Your task to perform on an android device: Empty the shopping cart on target.com. Search for "razer blackwidow" on target.com, select the first entry, add it to the cart, then select checkout. Image 0: 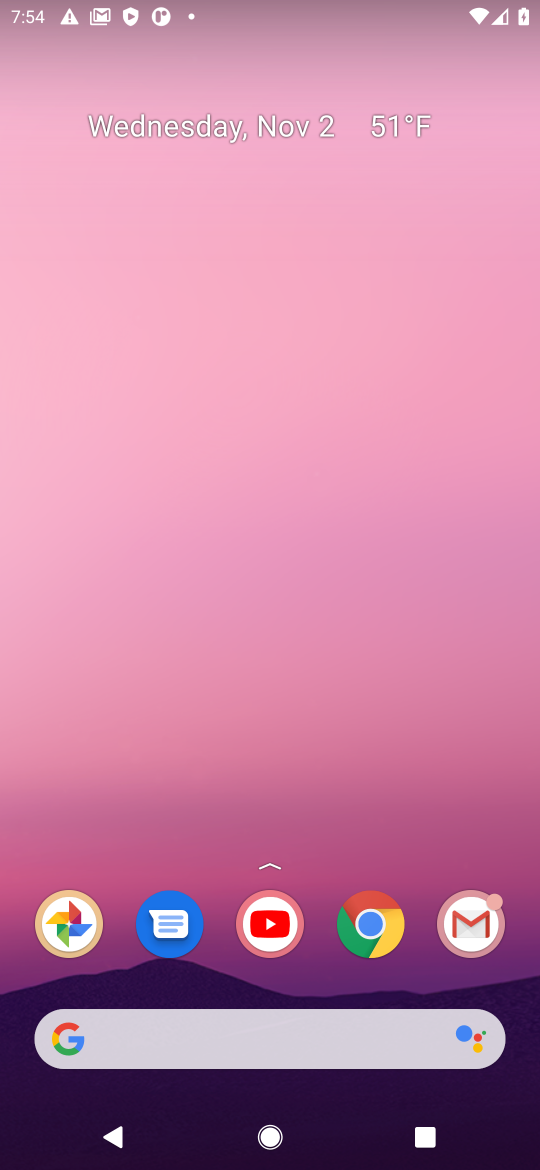
Step 0: click (379, 913)
Your task to perform on an android device: Empty the shopping cart on target.com. Search for "razer blackwidow" on target.com, select the first entry, add it to the cart, then select checkout. Image 1: 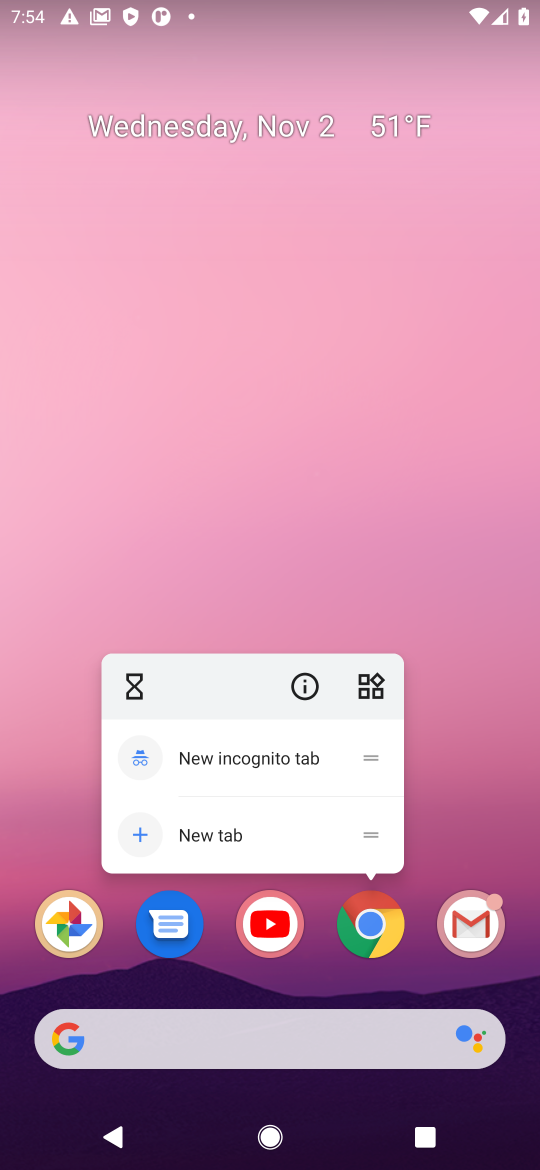
Step 1: click (389, 935)
Your task to perform on an android device: Empty the shopping cart on target.com. Search for "razer blackwidow" on target.com, select the first entry, add it to the cart, then select checkout. Image 2: 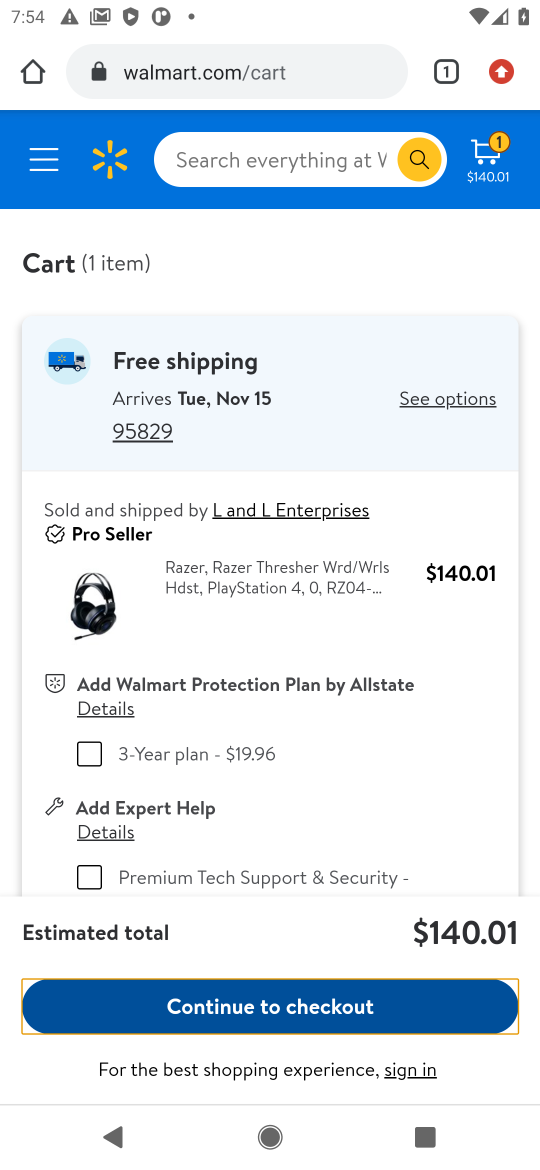
Step 2: click (240, 70)
Your task to perform on an android device: Empty the shopping cart on target.com. Search for "razer blackwidow" on target.com, select the first entry, add it to the cart, then select checkout. Image 3: 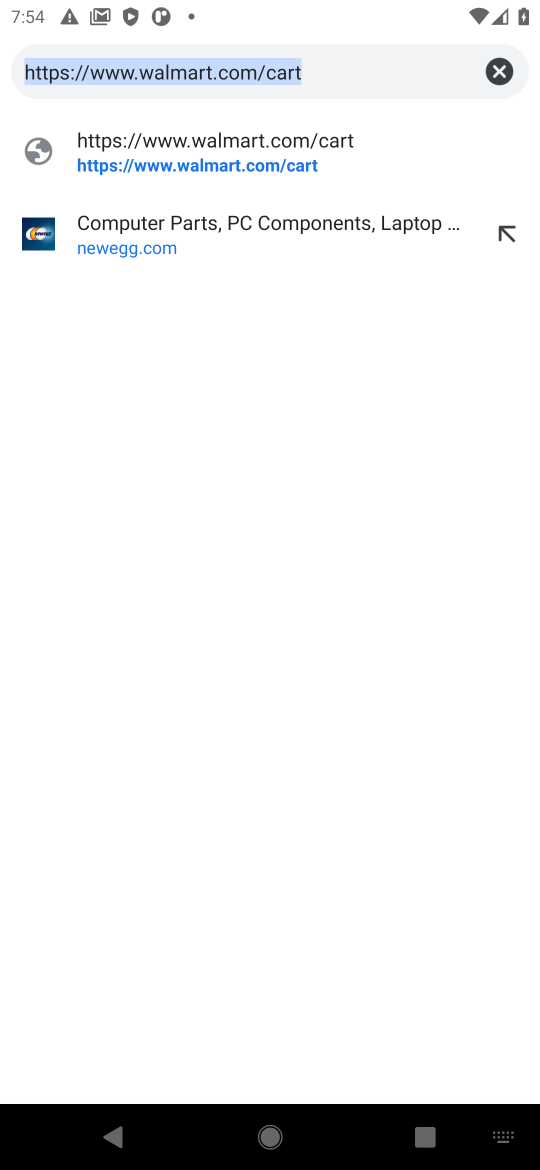
Step 3: click (495, 67)
Your task to perform on an android device: Empty the shopping cart on target.com. Search for "razer blackwidow" on target.com, select the first entry, add it to the cart, then select checkout. Image 4: 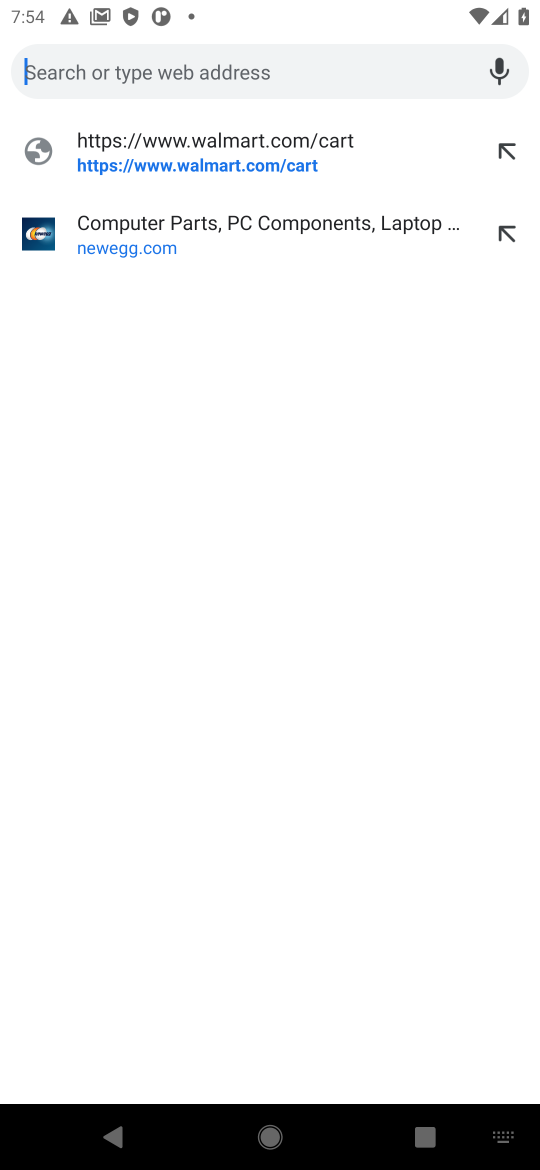
Step 4: type "target.com"
Your task to perform on an android device: Empty the shopping cart on target.com. Search for "razer blackwidow" on target.com, select the first entry, add it to the cart, then select checkout. Image 5: 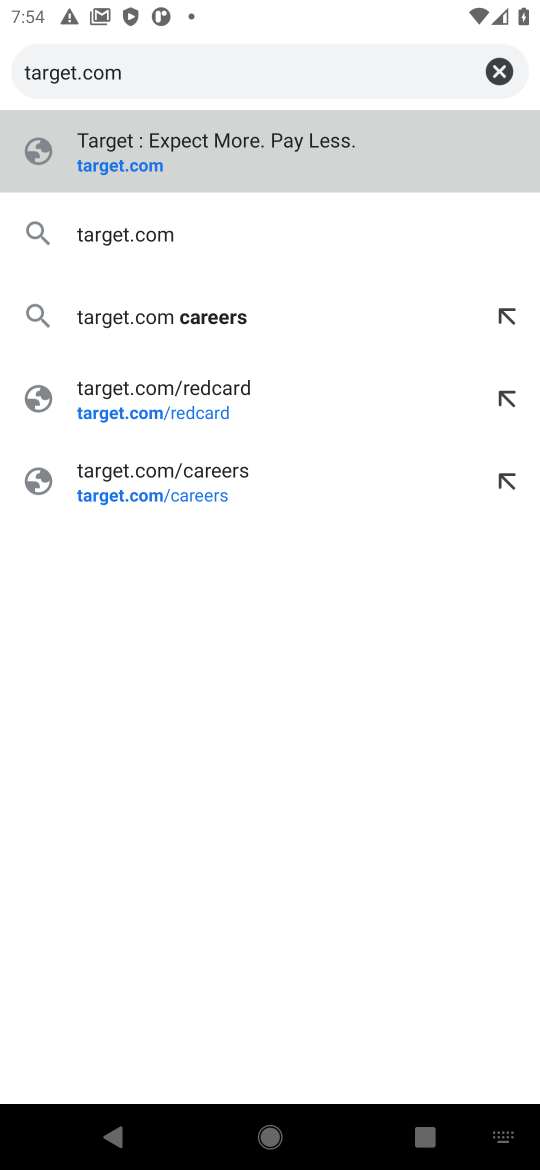
Step 5: type ""
Your task to perform on an android device: Empty the shopping cart on target.com. Search for "razer blackwidow" on target.com, select the first entry, add it to the cart, then select checkout. Image 6: 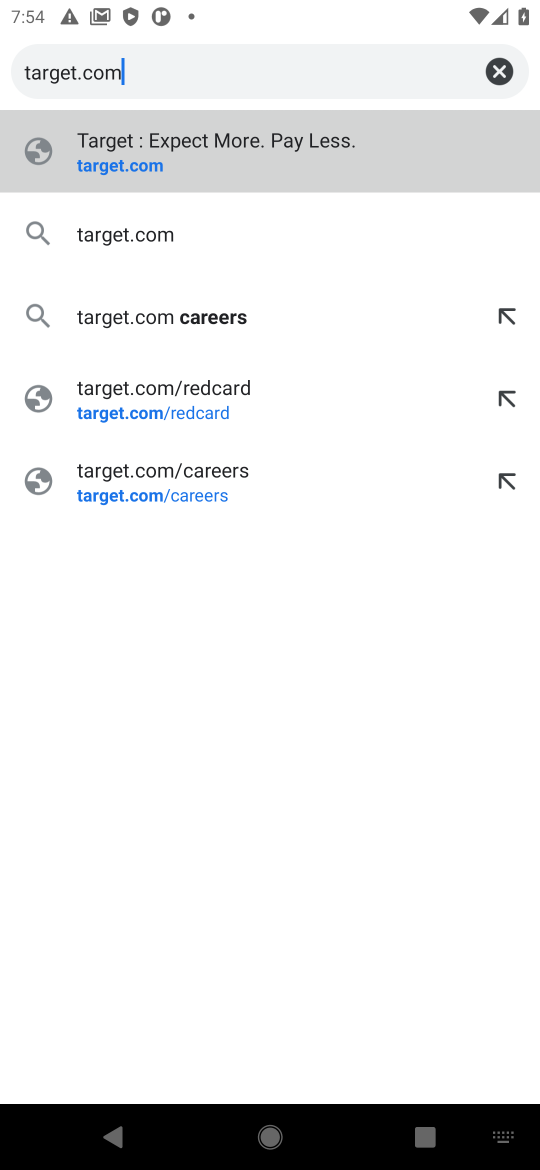
Step 6: click (226, 143)
Your task to perform on an android device: Empty the shopping cart on target.com. Search for "razer blackwidow" on target.com, select the first entry, add it to the cart, then select checkout. Image 7: 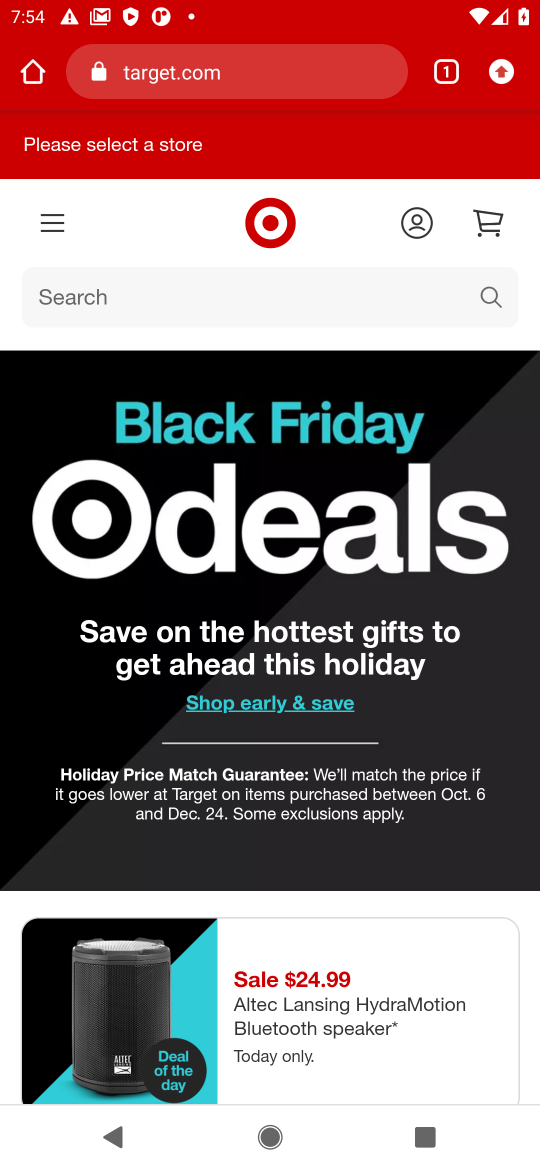
Step 7: click (491, 289)
Your task to perform on an android device: Empty the shopping cart on target.com. Search for "razer blackwidow" on target.com, select the first entry, add it to the cart, then select checkout. Image 8: 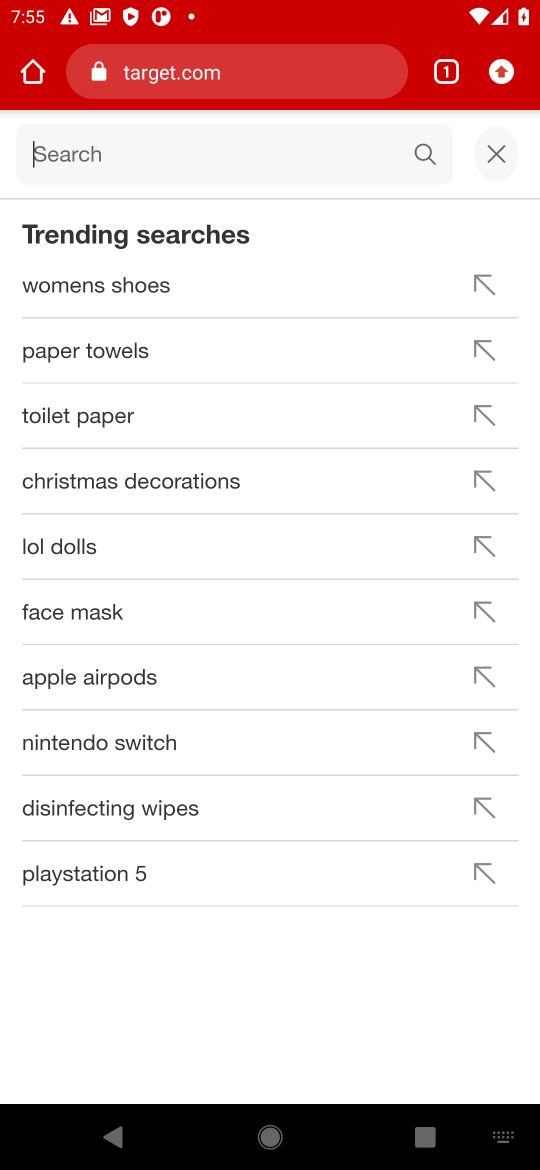
Step 8: type "razer blackwidow"
Your task to perform on an android device: Empty the shopping cart on target.com. Search for "razer blackwidow" on target.com, select the first entry, add it to the cart, then select checkout. Image 9: 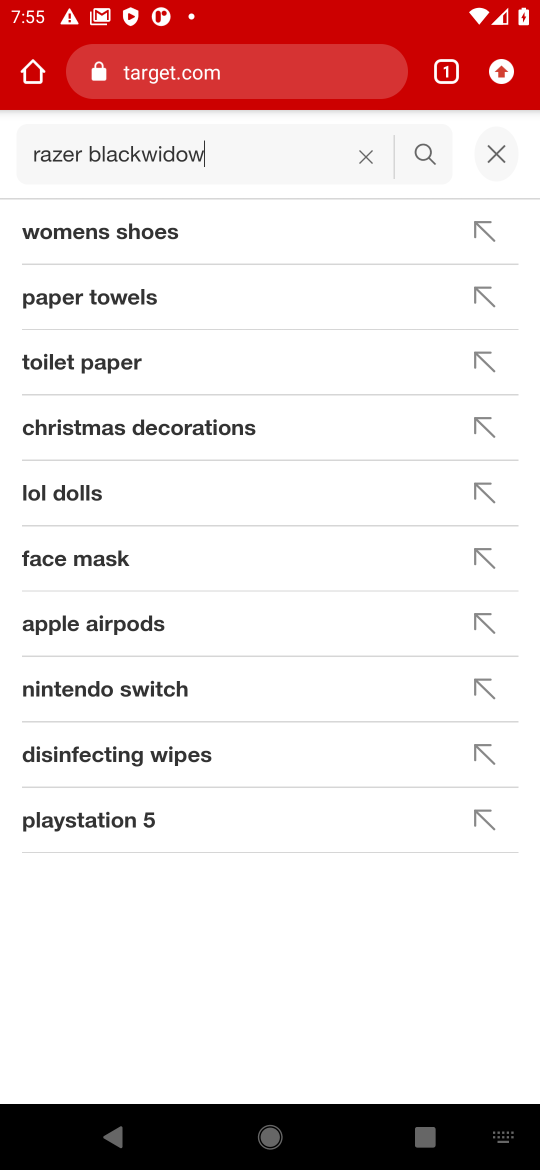
Step 9: type ""
Your task to perform on an android device: Empty the shopping cart on target.com. Search for "razer blackwidow" on target.com, select the first entry, add it to the cart, then select checkout. Image 10: 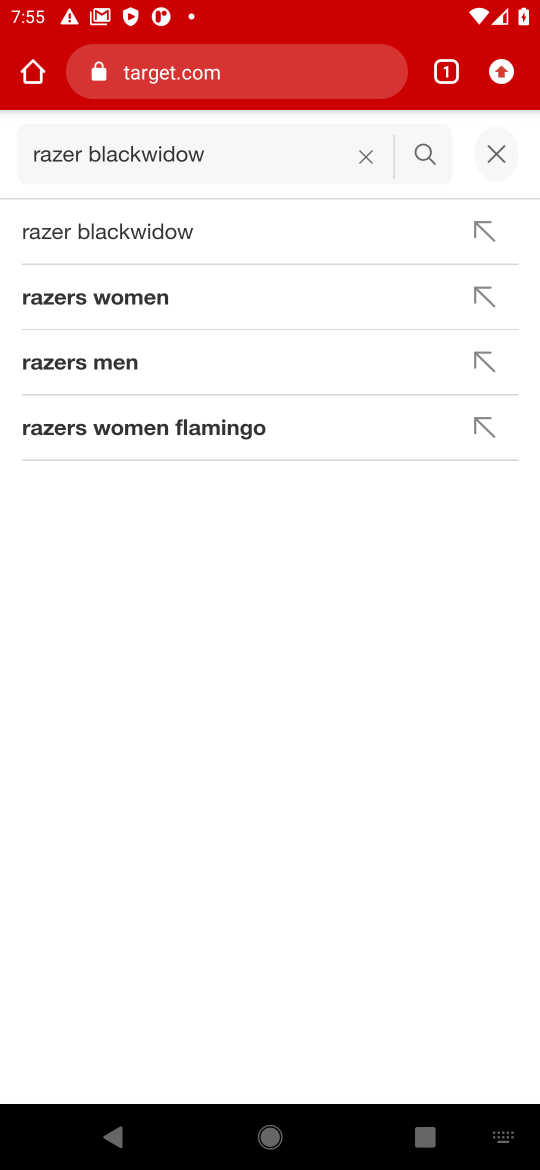
Step 10: click (146, 232)
Your task to perform on an android device: Empty the shopping cart on target.com. Search for "razer blackwidow" on target.com, select the first entry, add it to the cart, then select checkout. Image 11: 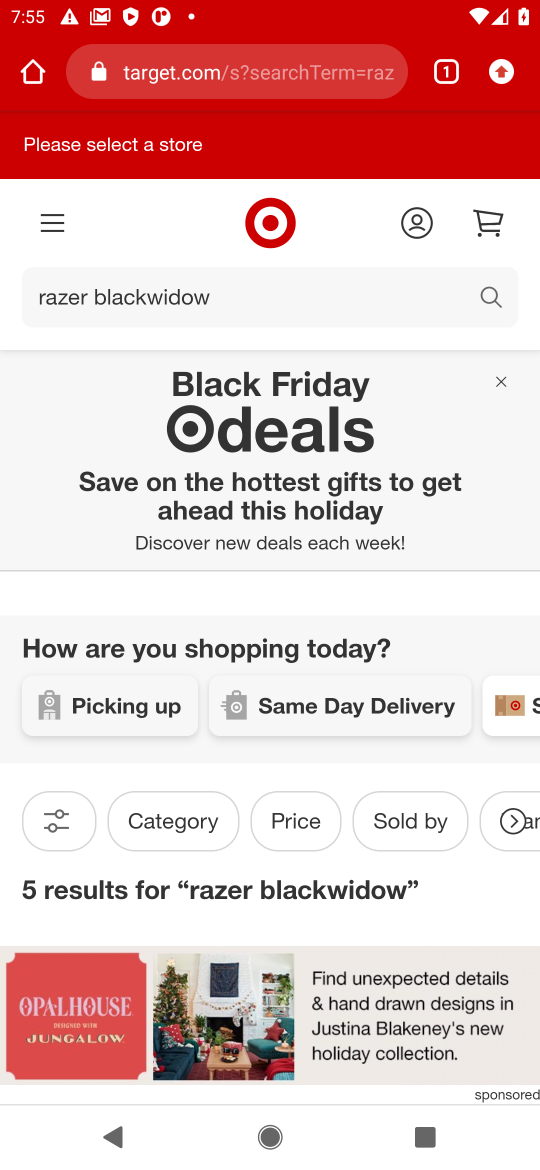
Step 11: drag from (99, 940) to (161, 447)
Your task to perform on an android device: Empty the shopping cart on target.com. Search for "razer blackwidow" on target.com, select the first entry, add it to the cart, then select checkout. Image 12: 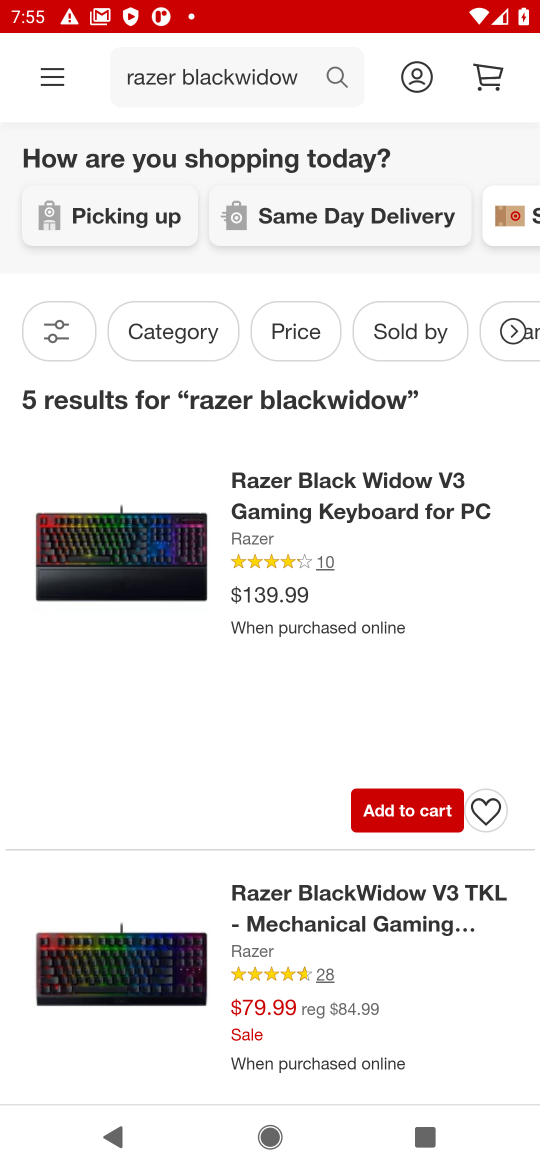
Step 12: click (323, 885)
Your task to perform on an android device: Empty the shopping cart on target.com. Search for "razer blackwidow" on target.com, select the first entry, add it to the cart, then select checkout. Image 13: 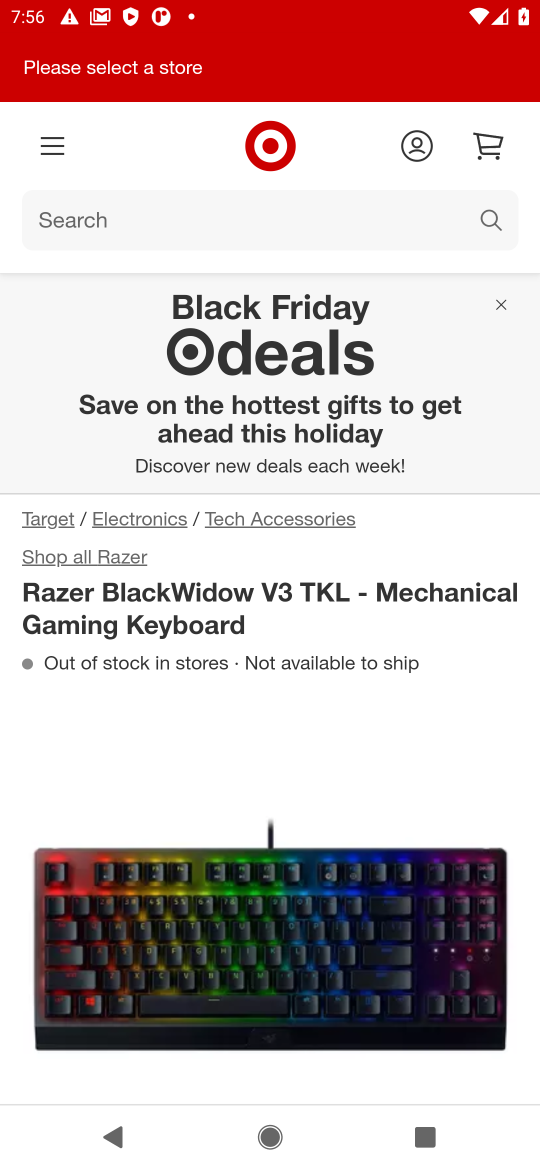
Step 13: drag from (222, 1012) to (366, 447)
Your task to perform on an android device: Empty the shopping cart on target.com. Search for "razer blackwidow" on target.com, select the first entry, add it to the cart, then select checkout. Image 14: 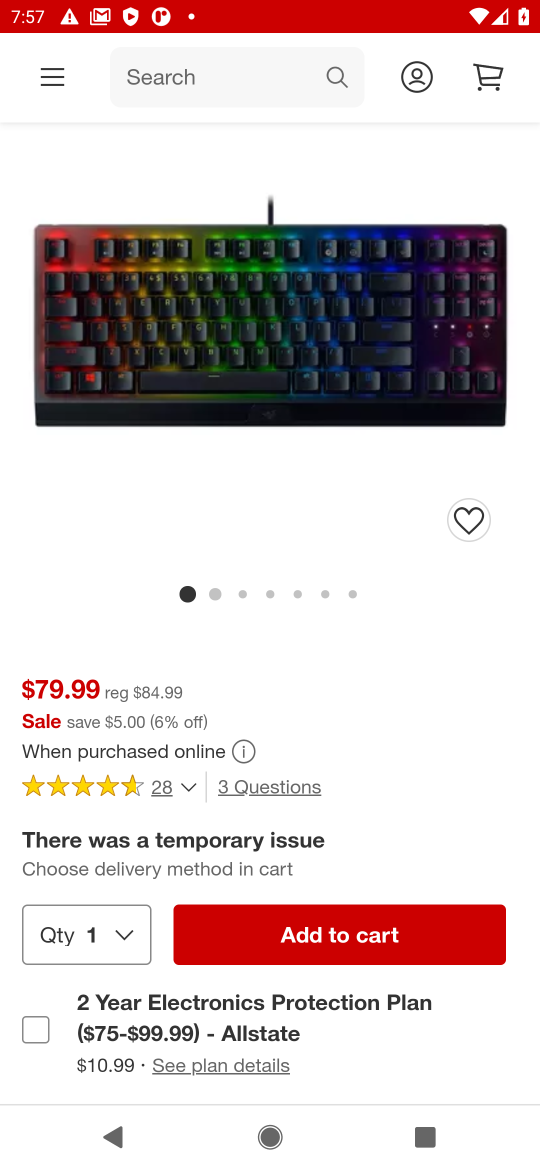
Step 14: click (288, 943)
Your task to perform on an android device: Empty the shopping cart on target.com. Search for "razer blackwidow" on target.com, select the first entry, add it to the cart, then select checkout. Image 15: 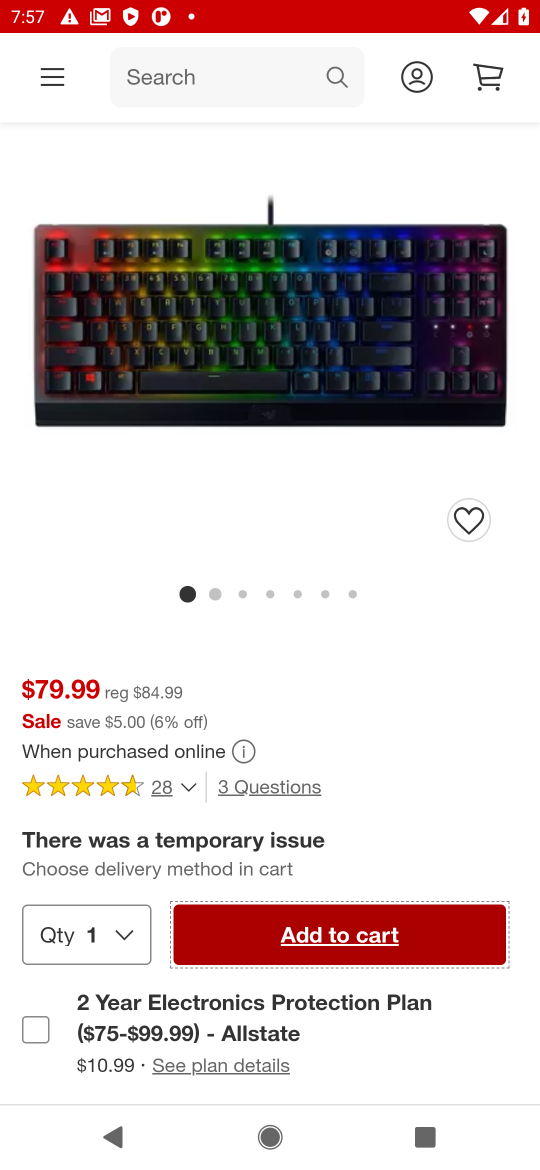
Step 15: click (288, 943)
Your task to perform on an android device: Empty the shopping cart on target.com. Search for "razer blackwidow" on target.com, select the first entry, add it to the cart, then select checkout. Image 16: 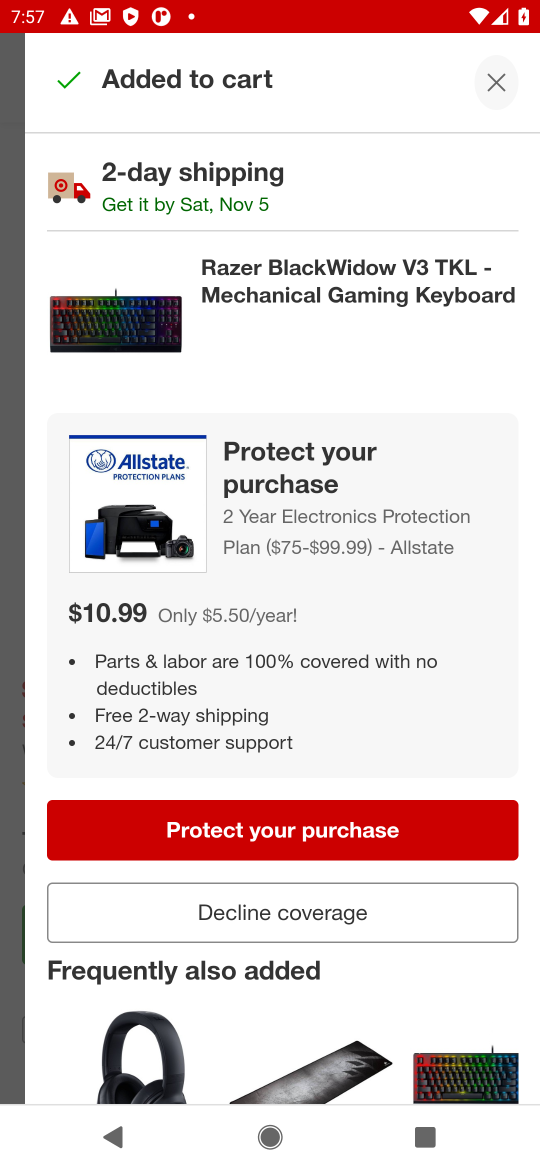
Step 16: click (203, 830)
Your task to perform on an android device: Empty the shopping cart on target.com. Search for "razer blackwidow" on target.com, select the first entry, add it to the cart, then select checkout. Image 17: 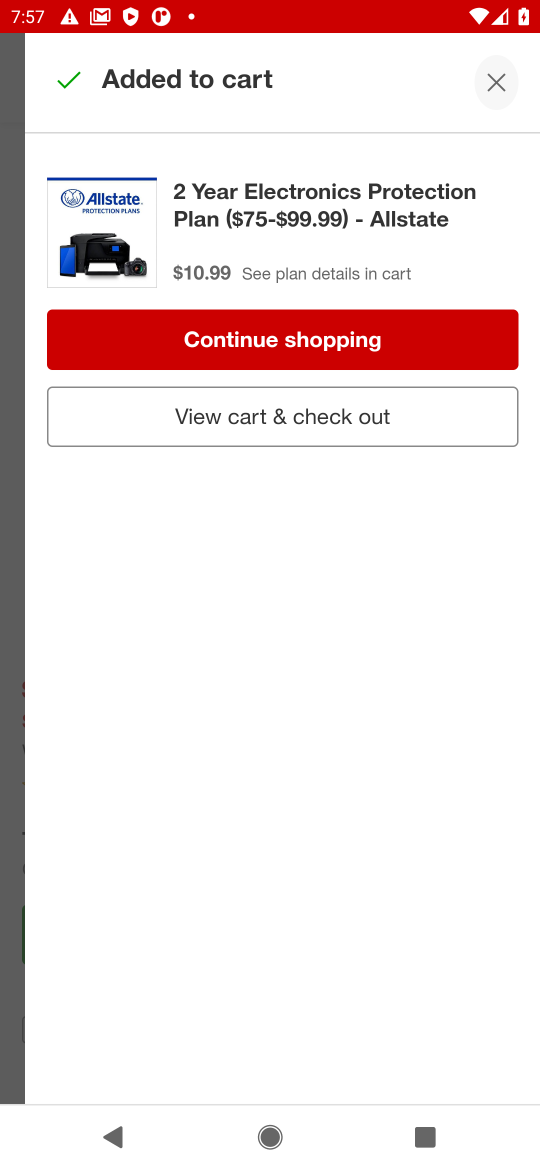
Step 17: click (184, 417)
Your task to perform on an android device: Empty the shopping cart on target.com. Search for "razer blackwidow" on target.com, select the first entry, add it to the cart, then select checkout. Image 18: 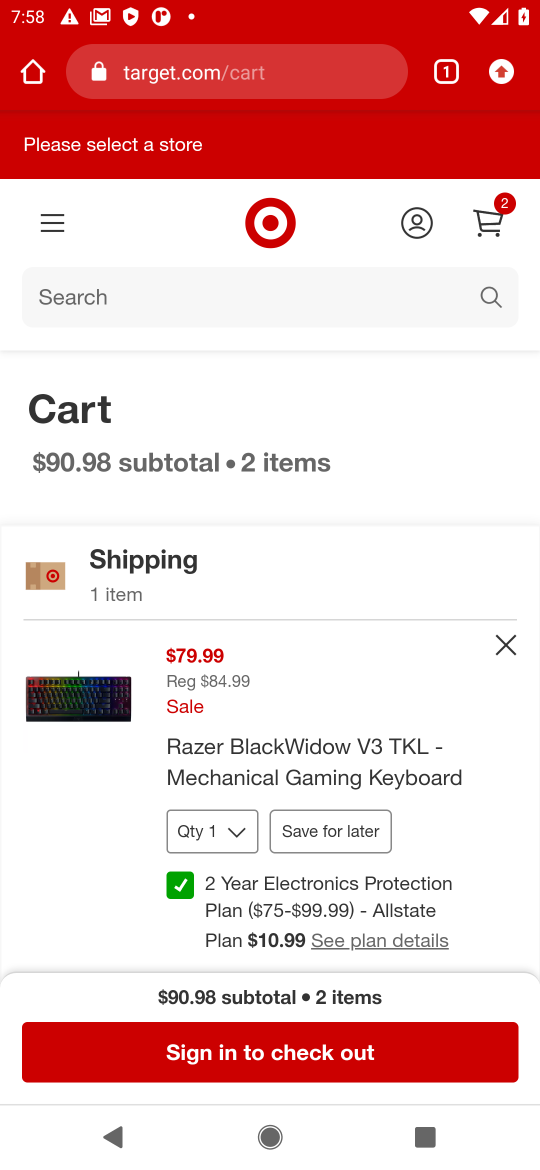
Step 18: click (307, 1051)
Your task to perform on an android device: Empty the shopping cart on target.com. Search for "razer blackwidow" on target.com, select the first entry, add it to the cart, then select checkout. Image 19: 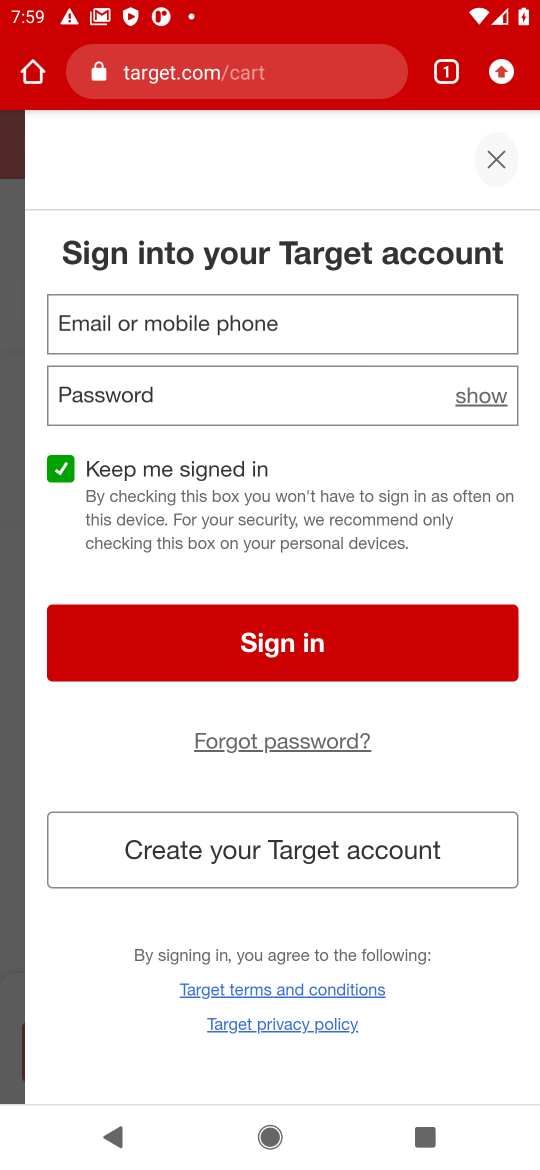
Step 19: task complete